Your task to perform on an android device: install app "Google Home" Image 0: 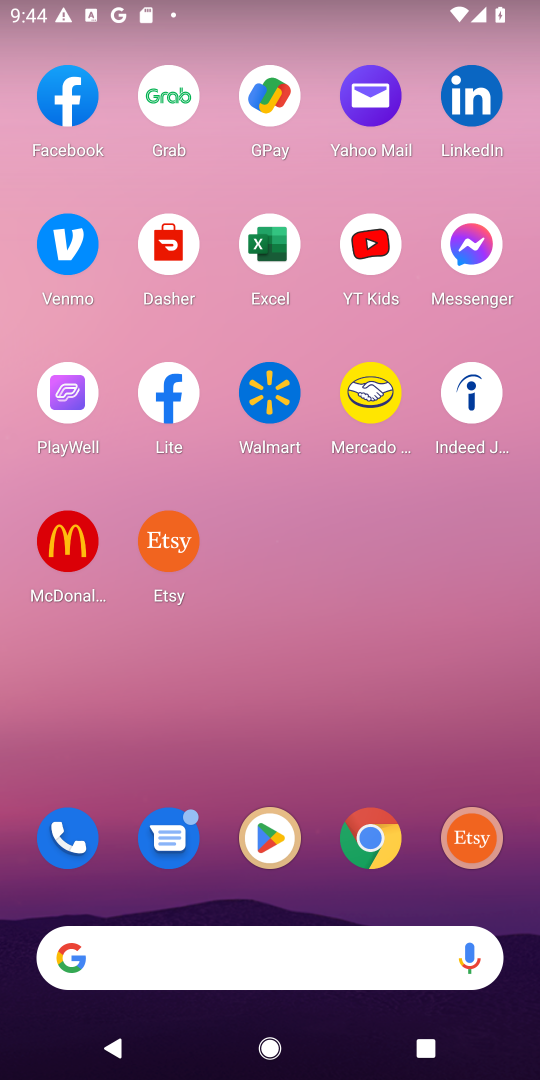
Step 0: click (262, 853)
Your task to perform on an android device: install app "Google Home" Image 1: 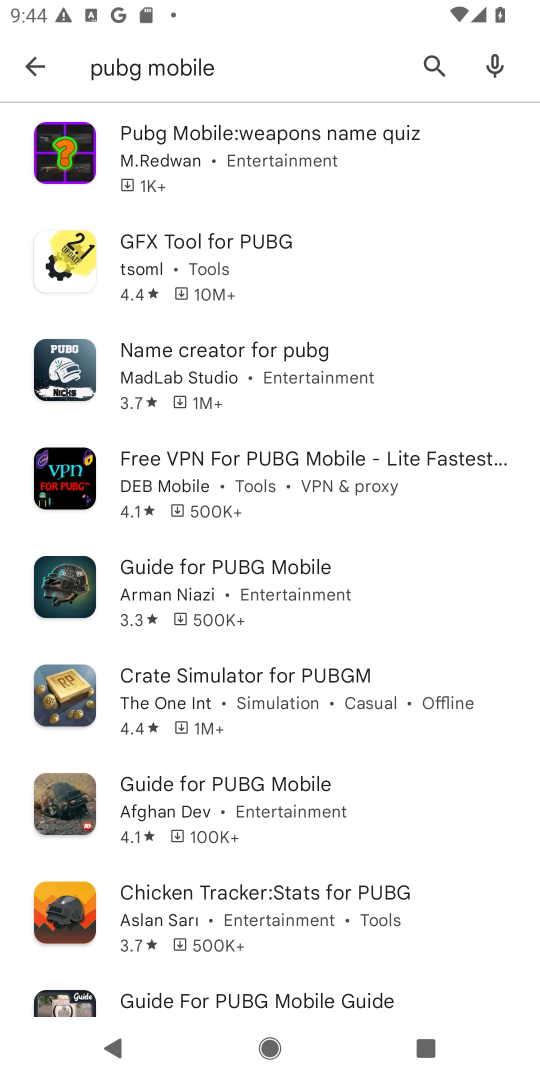
Step 1: click (408, 72)
Your task to perform on an android device: install app "Google Home" Image 2: 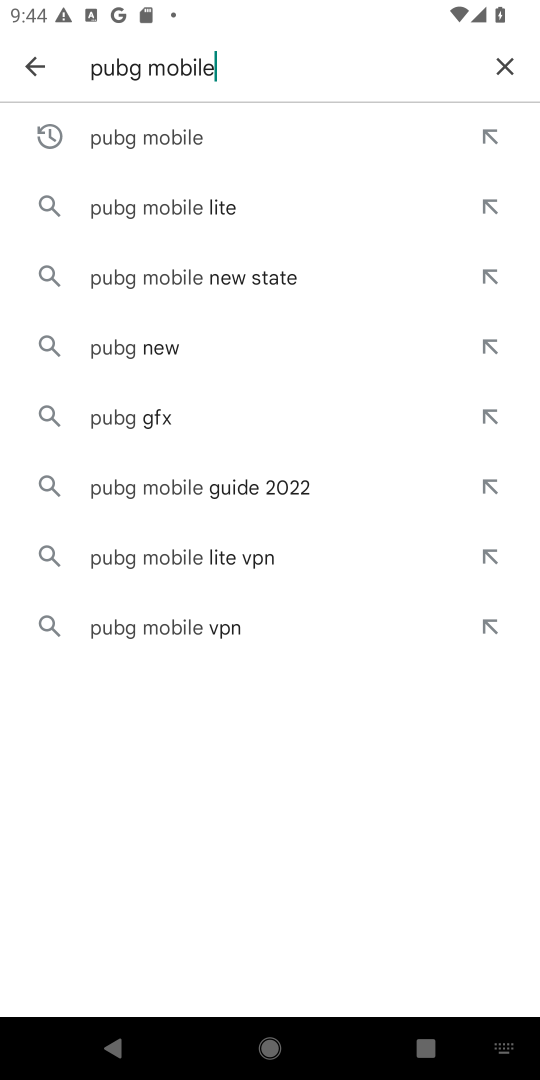
Step 2: click (498, 54)
Your task to perform on an android device: install app "Google Home" Image 3: 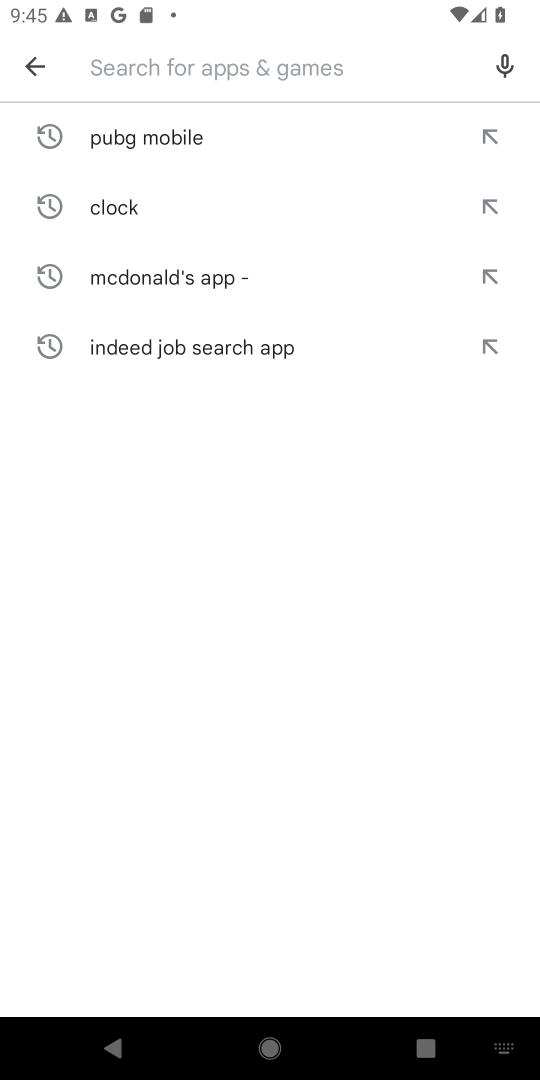
Step 3: type "Google Home"
Your task to perform on an android device: install app "Google Home" Image 4: 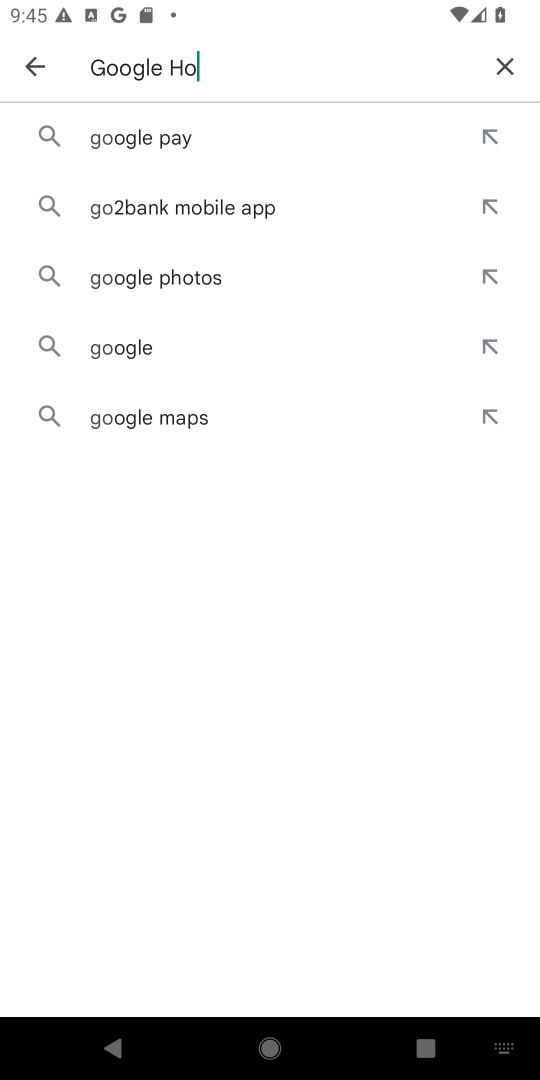
Step 4: type ""
Your task to perform on an android device: install app "Google Home" Image 5: 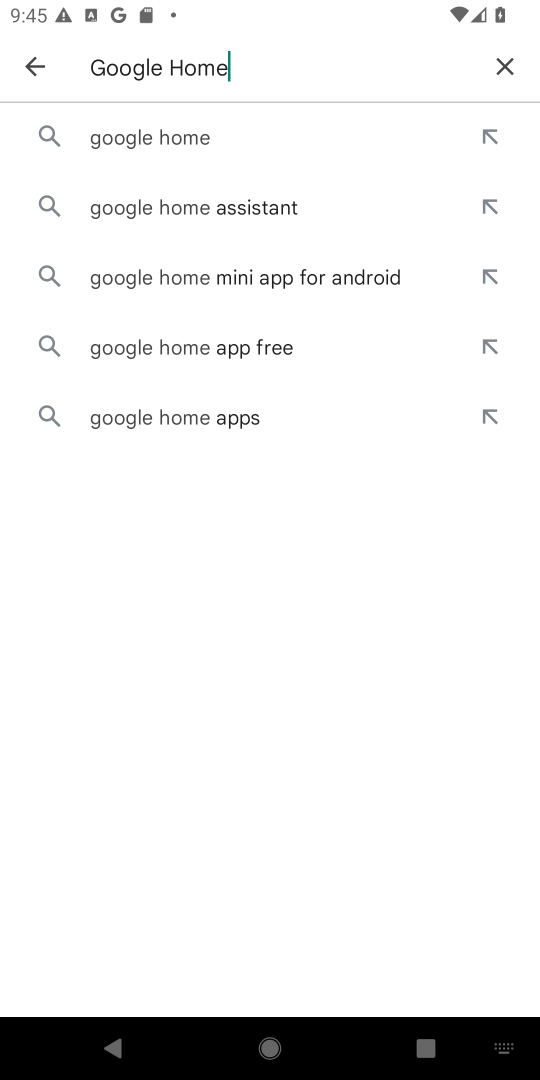
Step 5: click (225, 129)
Your task to perform on an android device: install app "Google Home" Image 6: 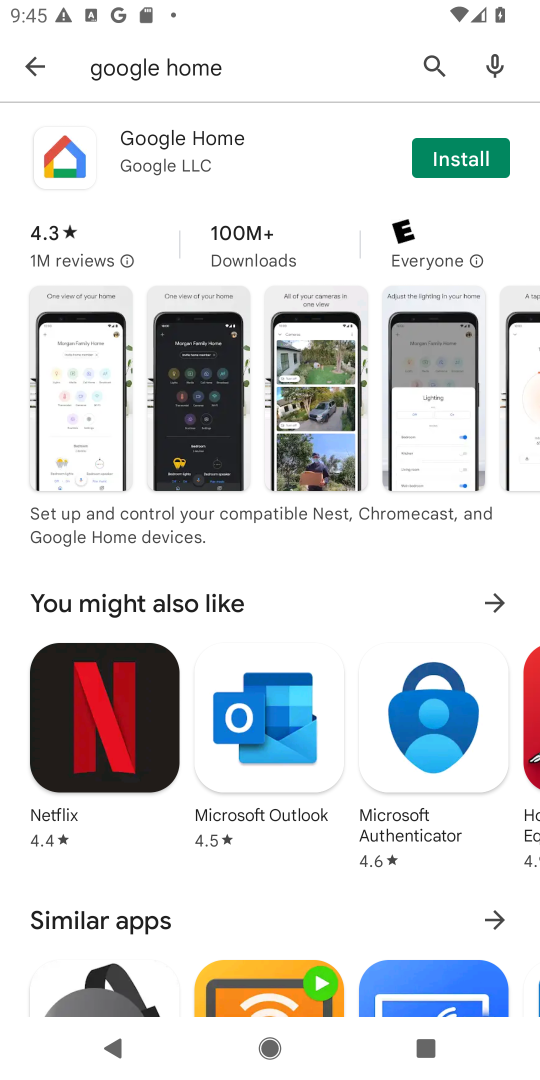
Step 6: click (480, 152)
Your task to perform on an android device: install app "Google Home" Image 7: 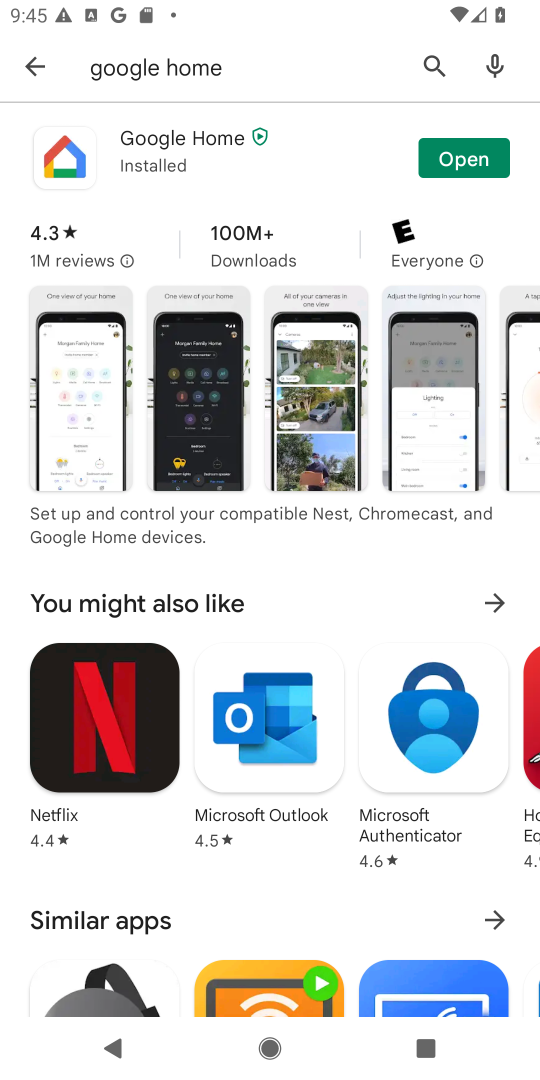
Step 7: task complete